Your task to perform on an android device: Open Google Chrome and click the shortcut for Amazon.com Image 0: 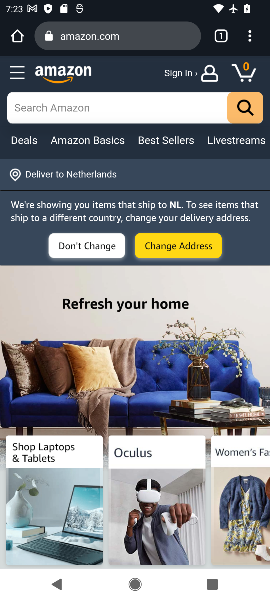
Step 0: click (247, 33)
Your task to perform on an android device: Open Google Chrome and click the shortcut for Amazon.com Image 1: 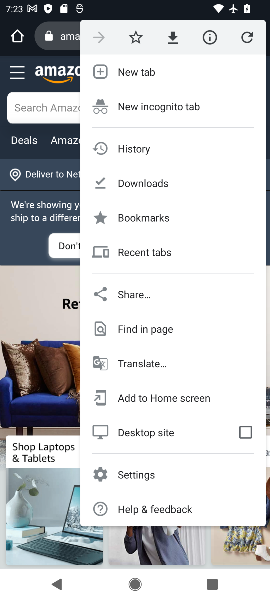
Step 1: click (142, 75)
Your task to perform on an android device: Open Google Chrome and click the shortcut for Amazon.com Image 2: 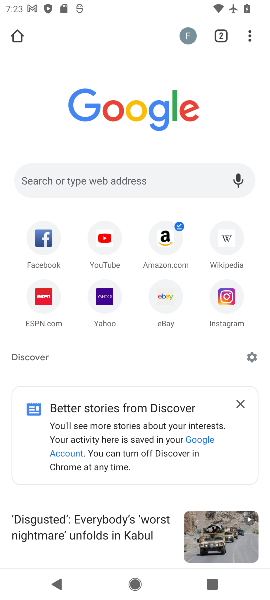
Step 2: click (159, 253)
Your task to perform on an android device: Open Google Chrome and click the shortcut for Amazon.com Image 3: 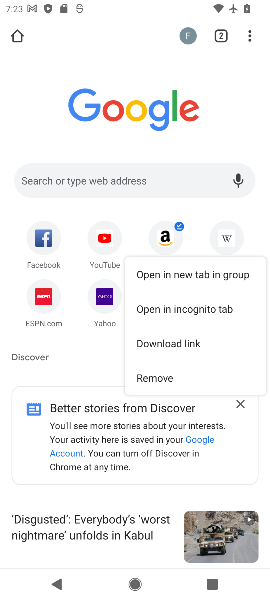
Step 3: click (160, 233)
Your task to perform on an android device: Open Google Chrome and click the shortcut for Amazon.com Image 4: 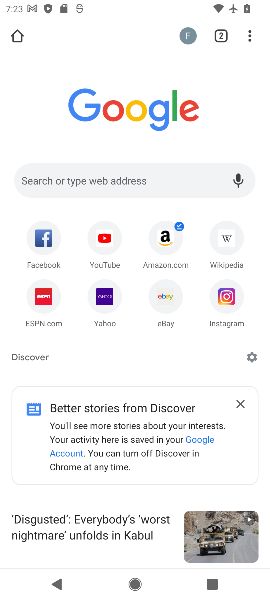
Step 4: click (160, 233)
Your task to perform on an android device: Open Google Chrome and click the shortcut for Amazon.com Image 5: 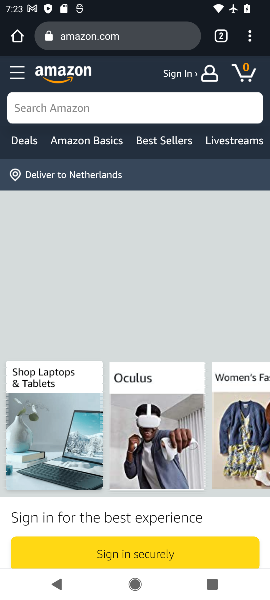
Step 5: task complete